Your task to perform on an android device: Show the shopping cart on walmart.com. Search for razer blade on walmart.com, select the first entry, add it to the cart, then select checkout. Image 0: 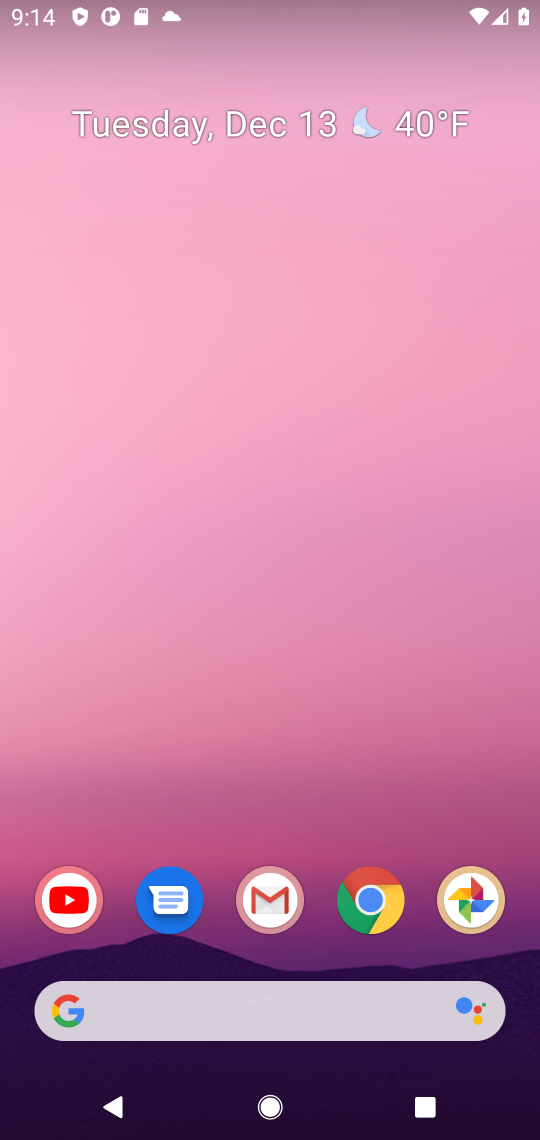
Step 0: task complete